Your task to perform on an android device: Open Google Chrome and click the shortcut for Amazon.com Image 0: 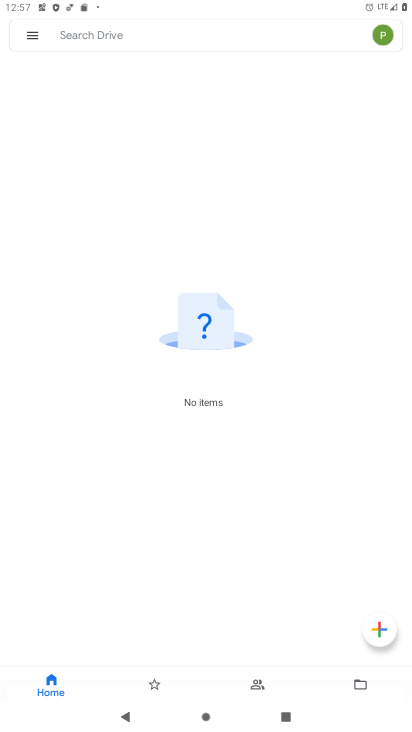
Step 0: press home button
Your task to perform on an android device: Open Google Chrome and click the shortcut for Amazon.com Image 1: 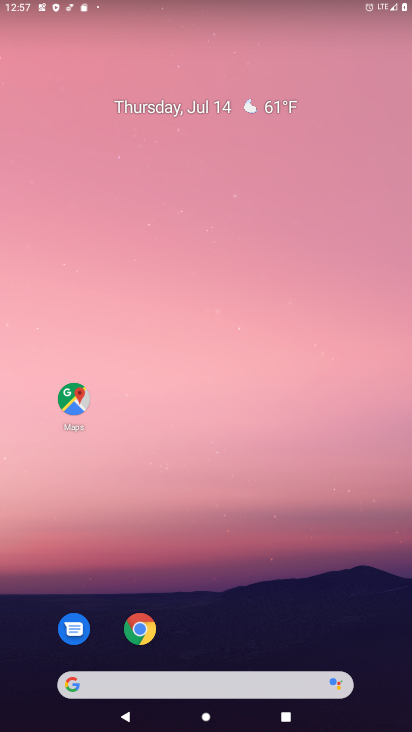
Step 1: click (136, 631)
Your task to perform on an android device: Open Google Chrome and click the shortcut for Amazon.com Image 2: 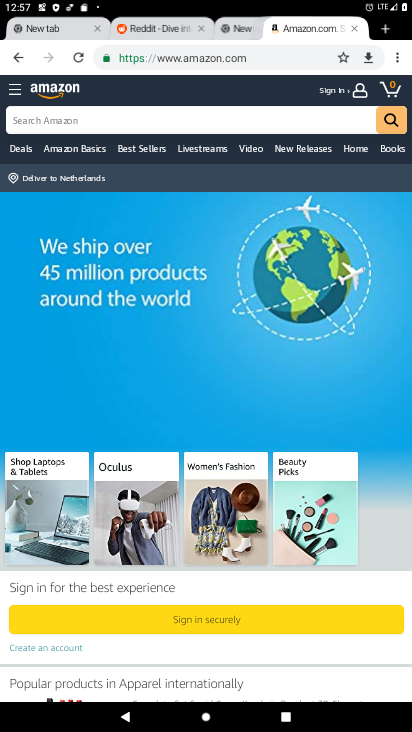
Step 2: task complete